Your task to perform on an android device: Open settings Image 0: 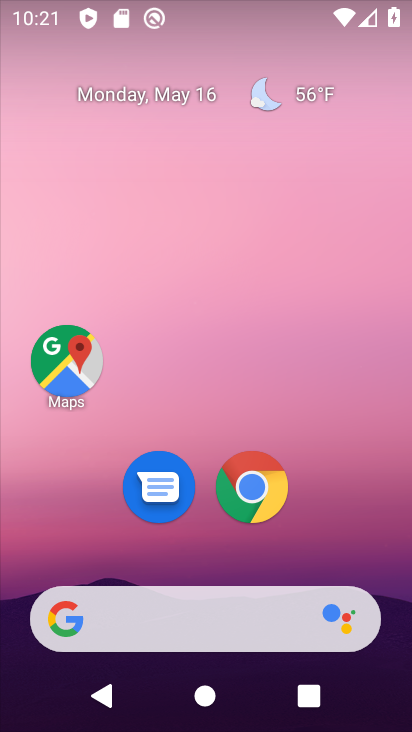
Step 0: drag from (299, 503) to (272, 159)
Your task to perform on an android device: Open settings Image 1: 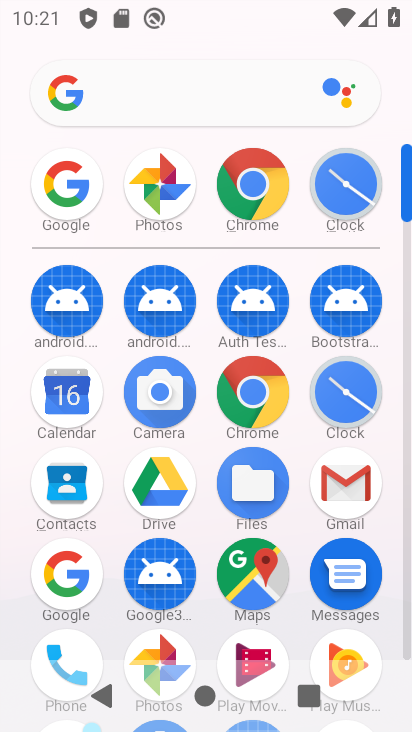
Step 1: drag from (290, 588) to (290, 314)
Your task to perform on an android device: Open settings Image 2: 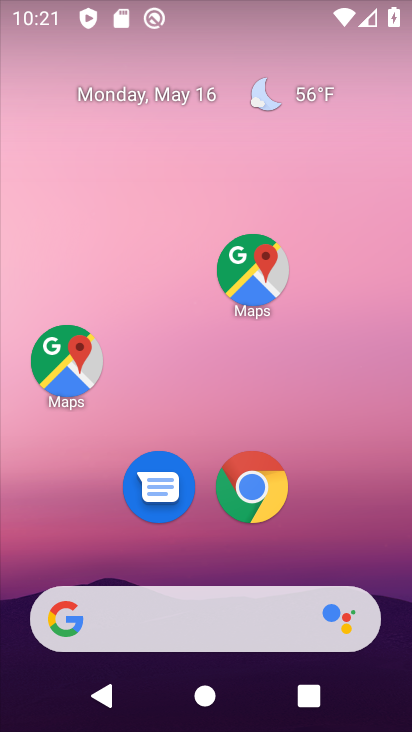
Step 2: press home button
Your task to perform on an android device: Open settings Image 3: 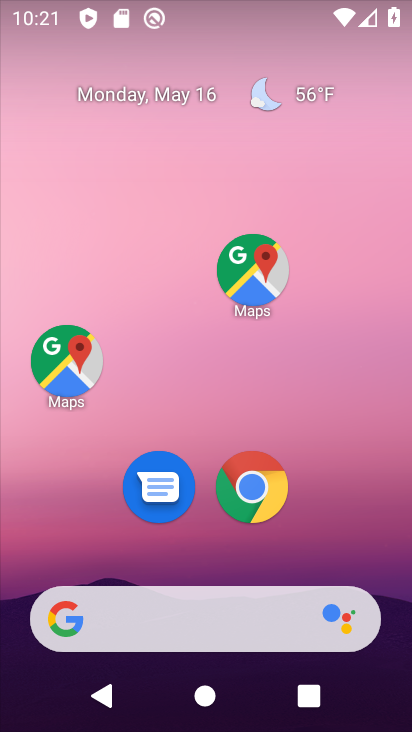
Step 3: drag from (326, 539) to (262, 256)
Your task to perform on an android device: Open settings Image 4: 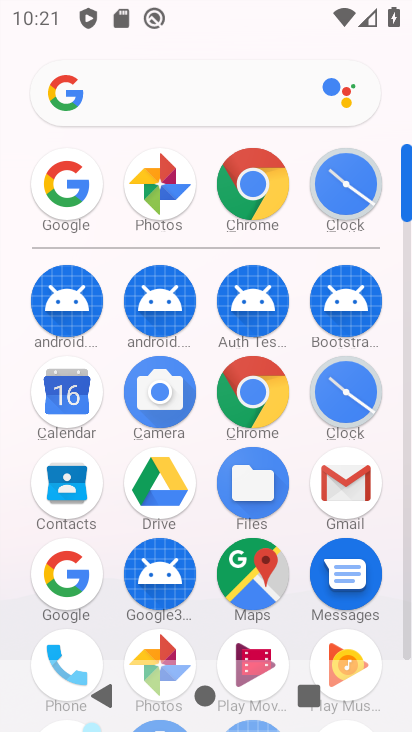
Step 4: drag from (252, 623) to (305, 279)
Your task to perform on an android device: Open settings Image 5: 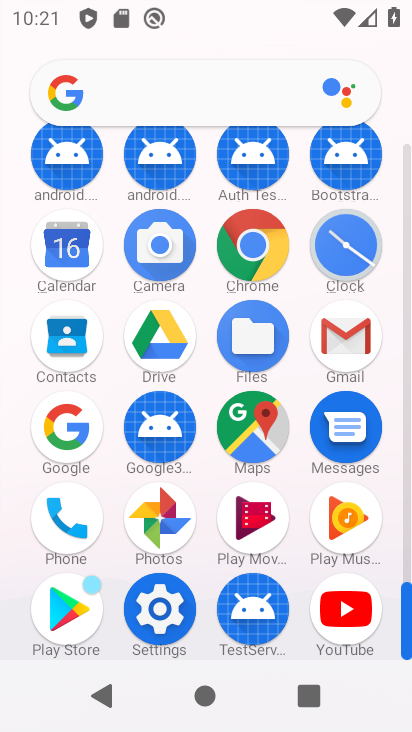
Step 5: click (144, 606)
Your task to perform on an android device: Open settings Image 6: 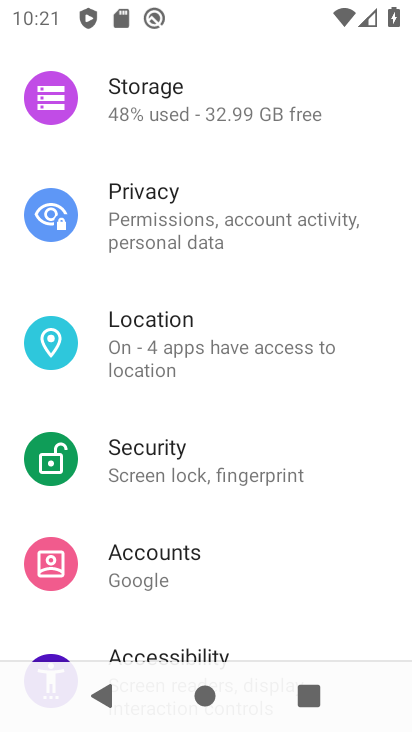
Step 6: task complete